Your task to perform on an android device: Clear all items from cart on bestbuy. Add "bose soundsport free" to the cart on bestbuy, then select checkout. Image 0: 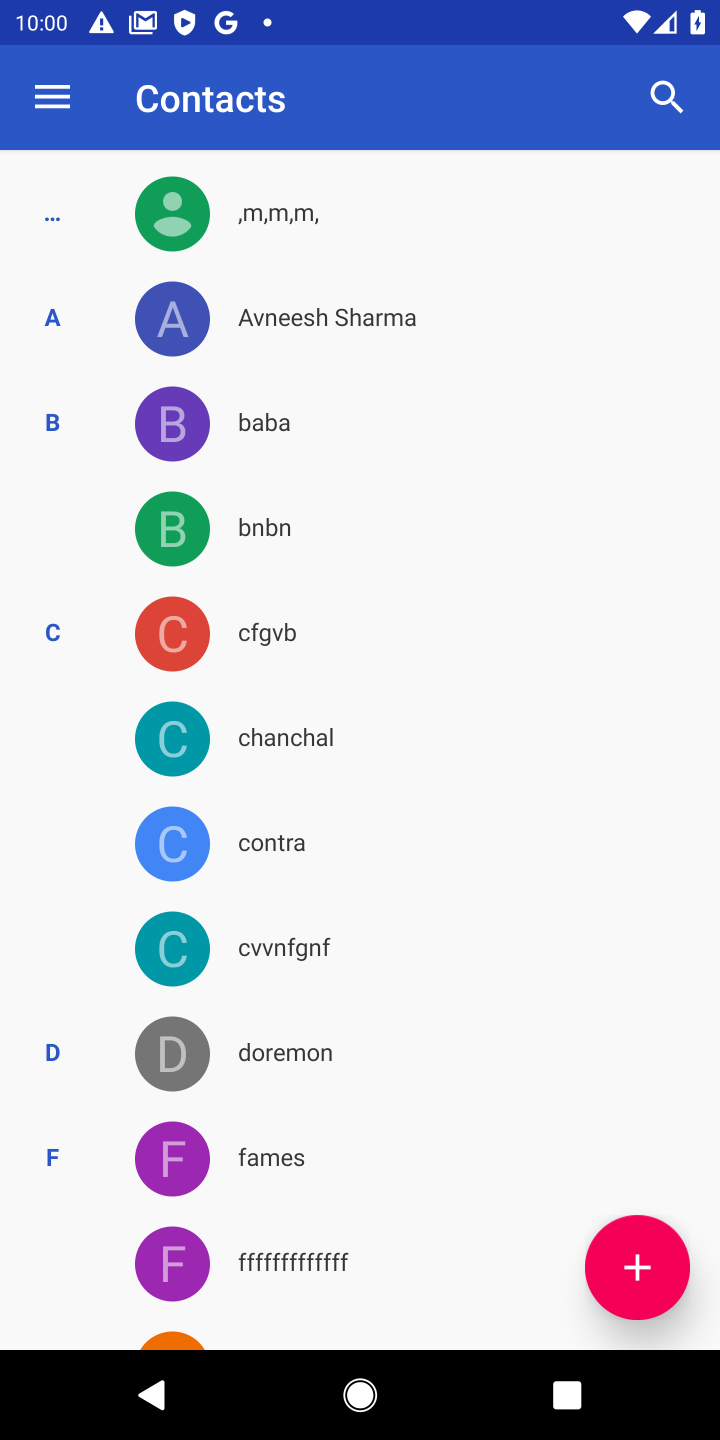
Step 0: press home button
Your task to perform on an android device: Clear all items from cart on bestbuy. Add "bose soundsport free" to the cart on bestbuy, then select checkout. Image 1: 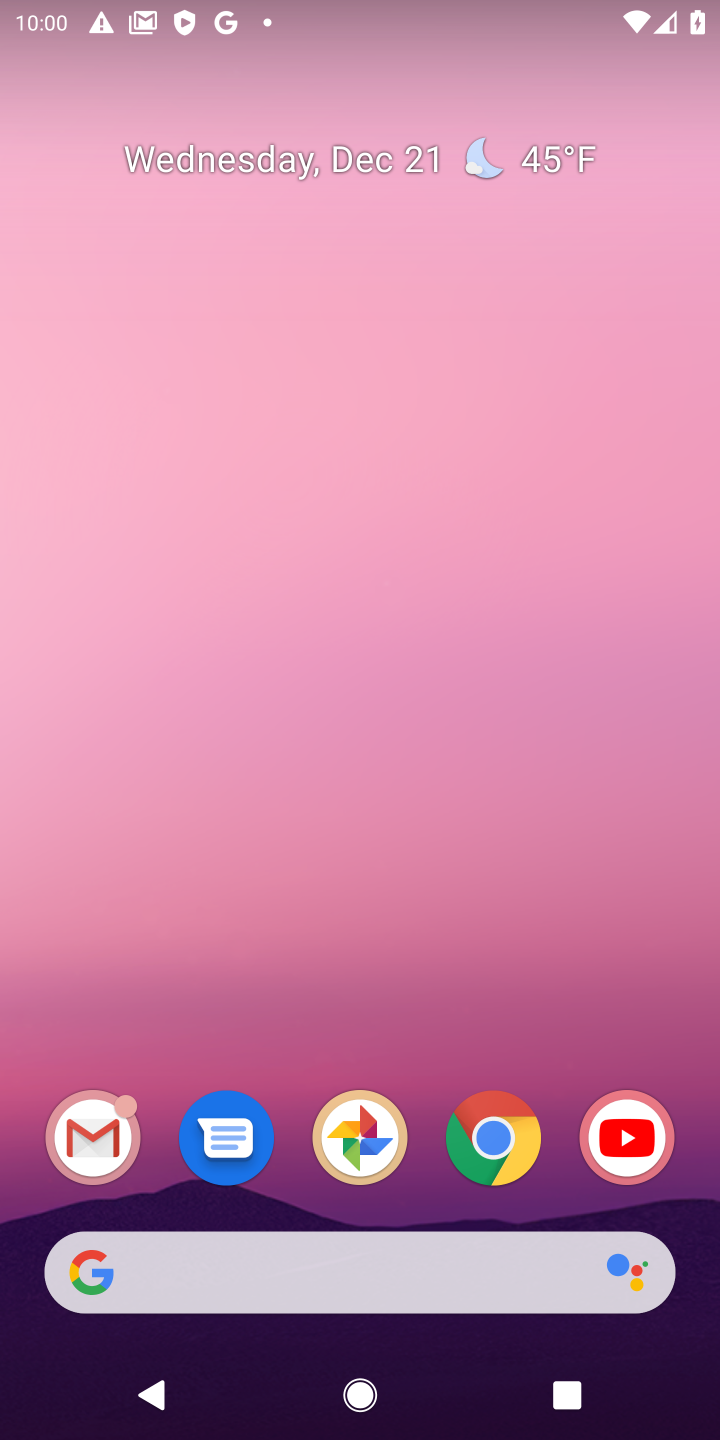
Step 1: click (500, 1151)
Your task to perform on an android device: Clear all items from cart on bestbuy. Add "bose soundsport free" to the cart on bestbuy, then select checkout. Image 2: 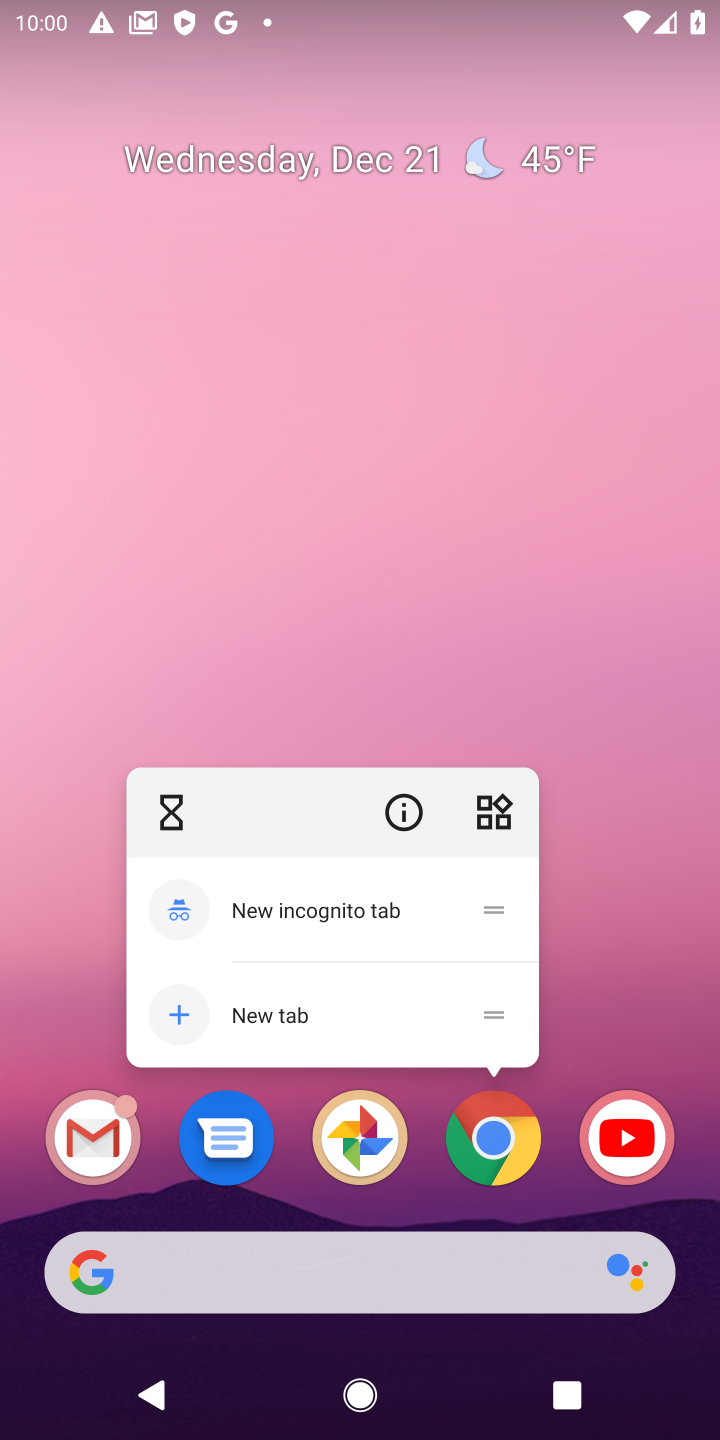
Step 2: click (492, 1144)
Your task to perform on an android device: Clear all items from cart on bestbuy. Add "bose soundsport free" to the cart on bestbuy, then select checkout. Image 3: 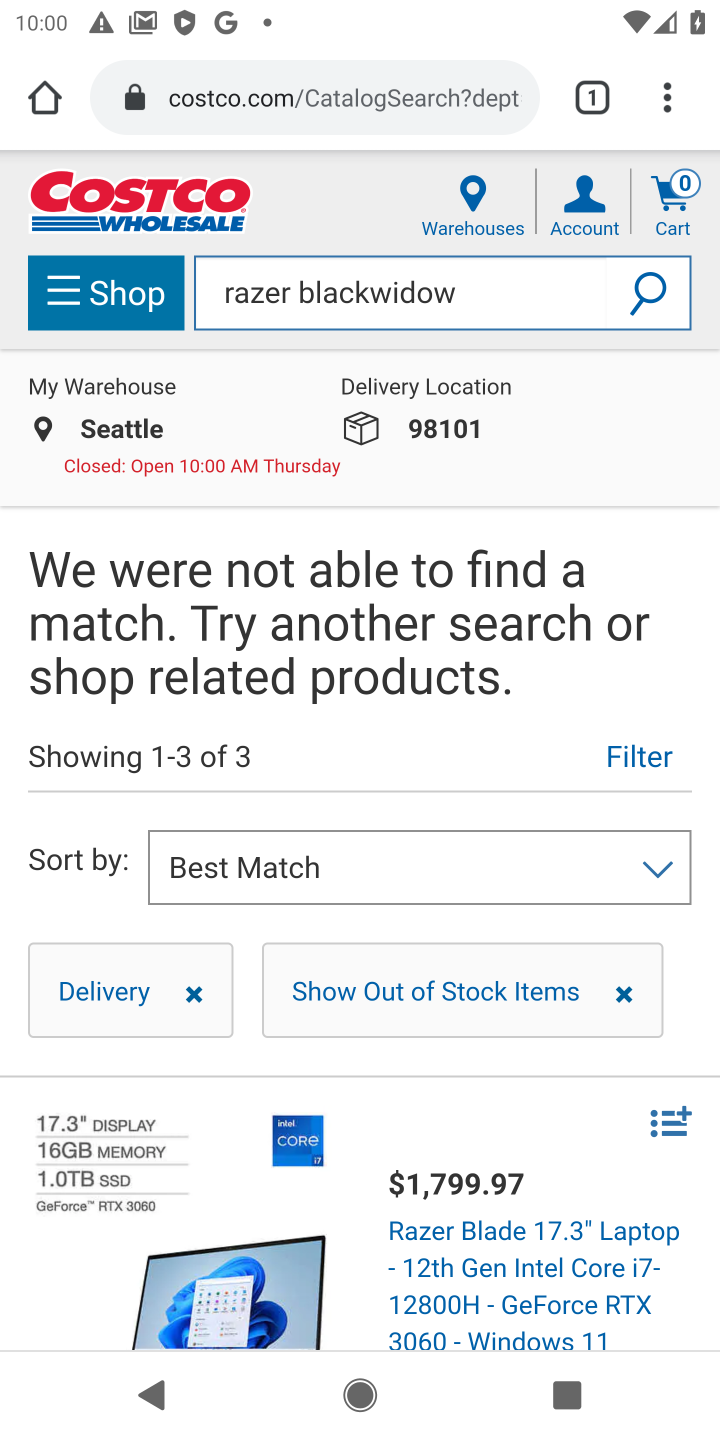
Step 3: click (286, 97)
Your task to perform on an android device: Clear all items from cart on bestbuy. Add "bose soundsport free" to the cart on bestbuy, then select checkout. Image 4: 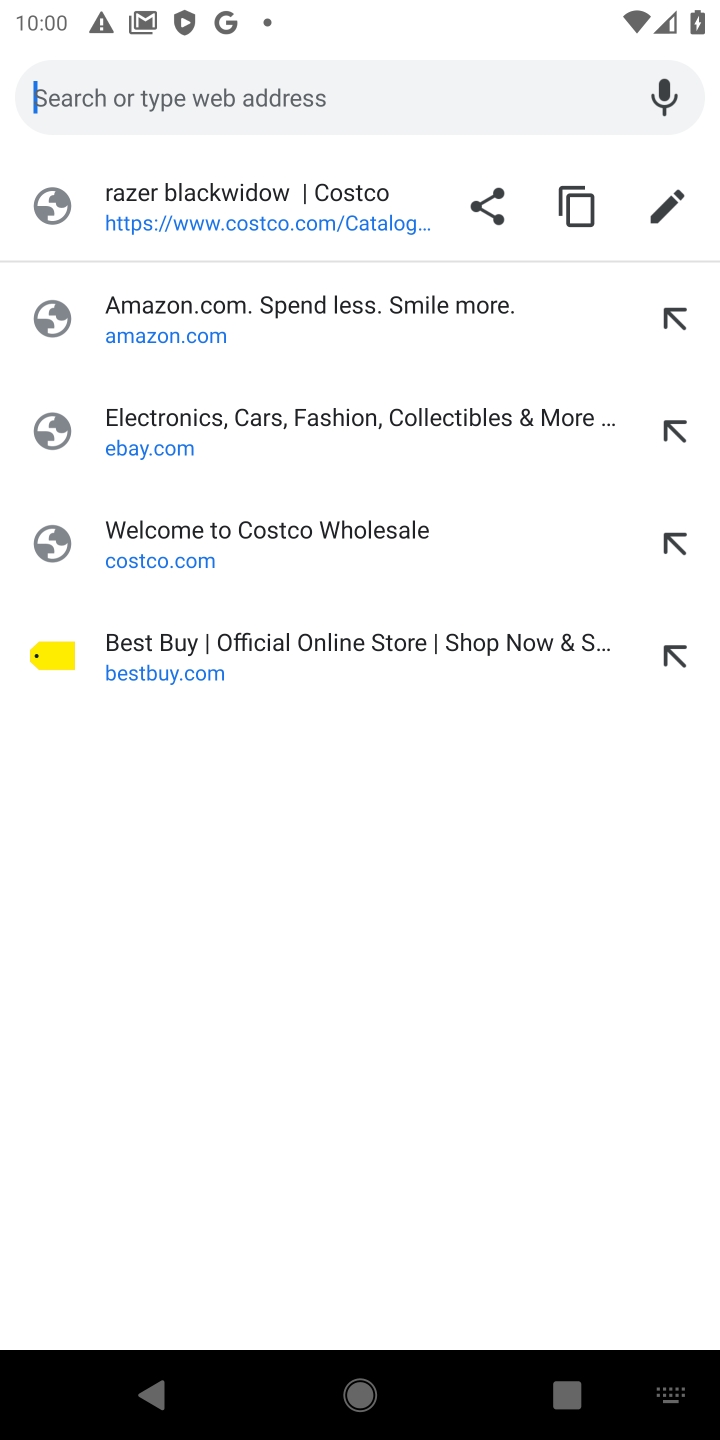
Step 4: click (148, 678)
Your task to perform on an android device: Clear all items from cart on bestbuy. Add "bose soundsport free" to the cart on bestbuy, then select checkout. Image 5: 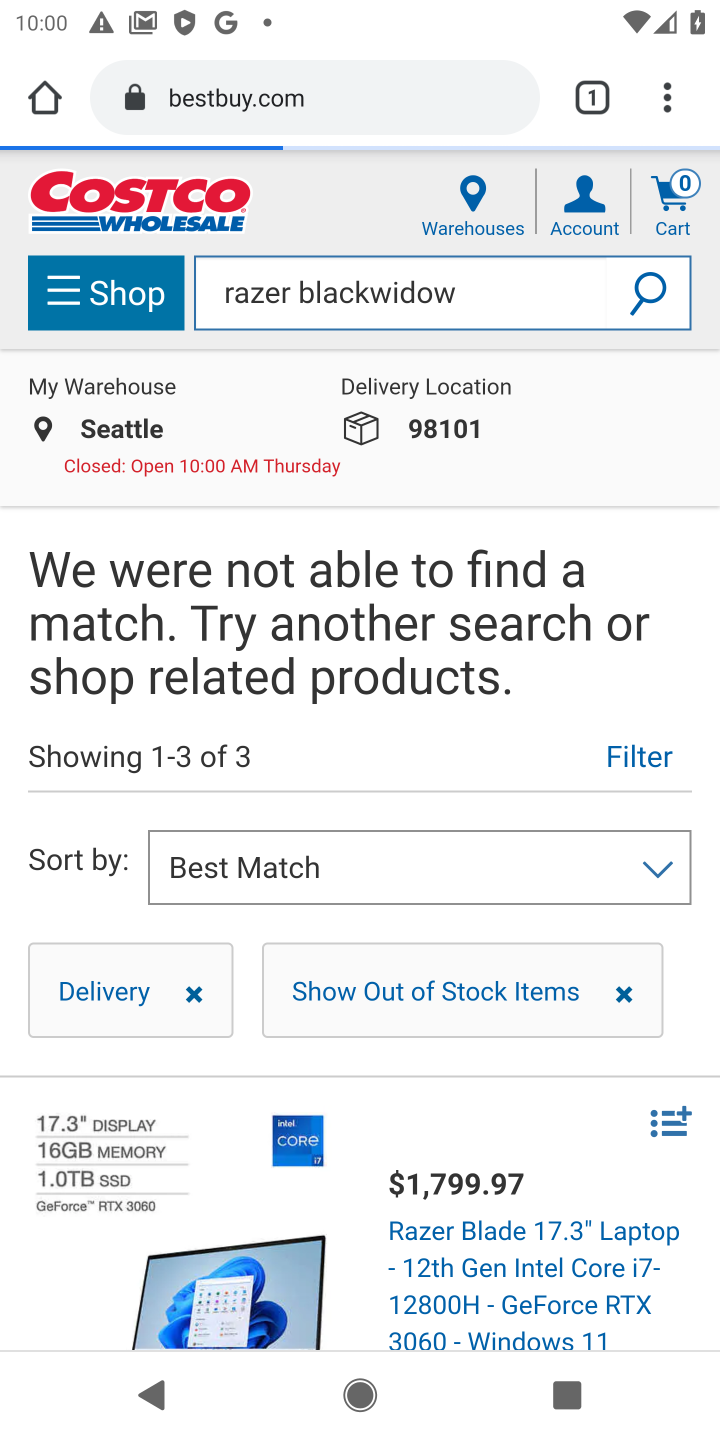
Step 5: click (666, 203)
Your task to perform on an android device: Clear all items from cart on bestbuy. Add "bose soundsport free" to the cart on bestbuy, then select checkout. Image 6: 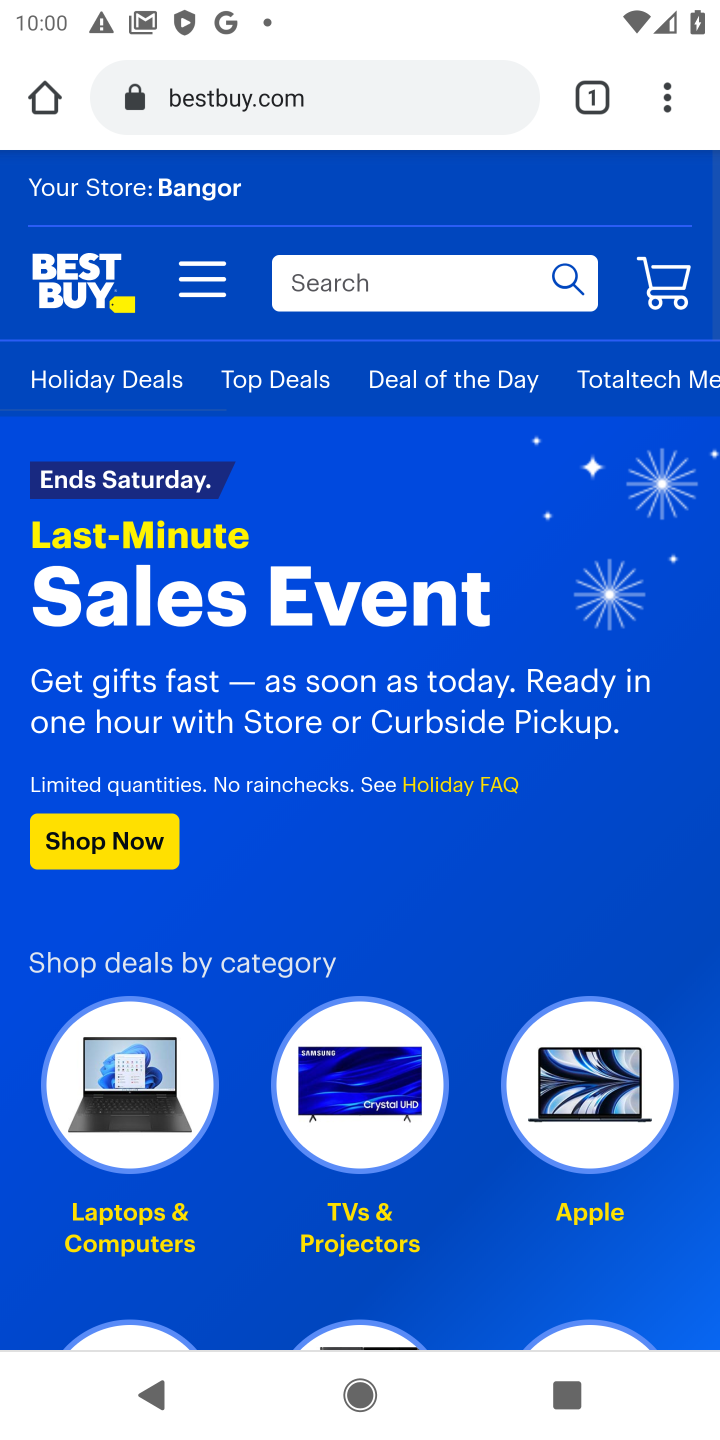
Step 6: click (674, 281)
Your task to perform on an android device: Clear all items from cart on bestbuy. Add "bose soundsport free" to the cart on bestbuy, then select checkout. Image 7: 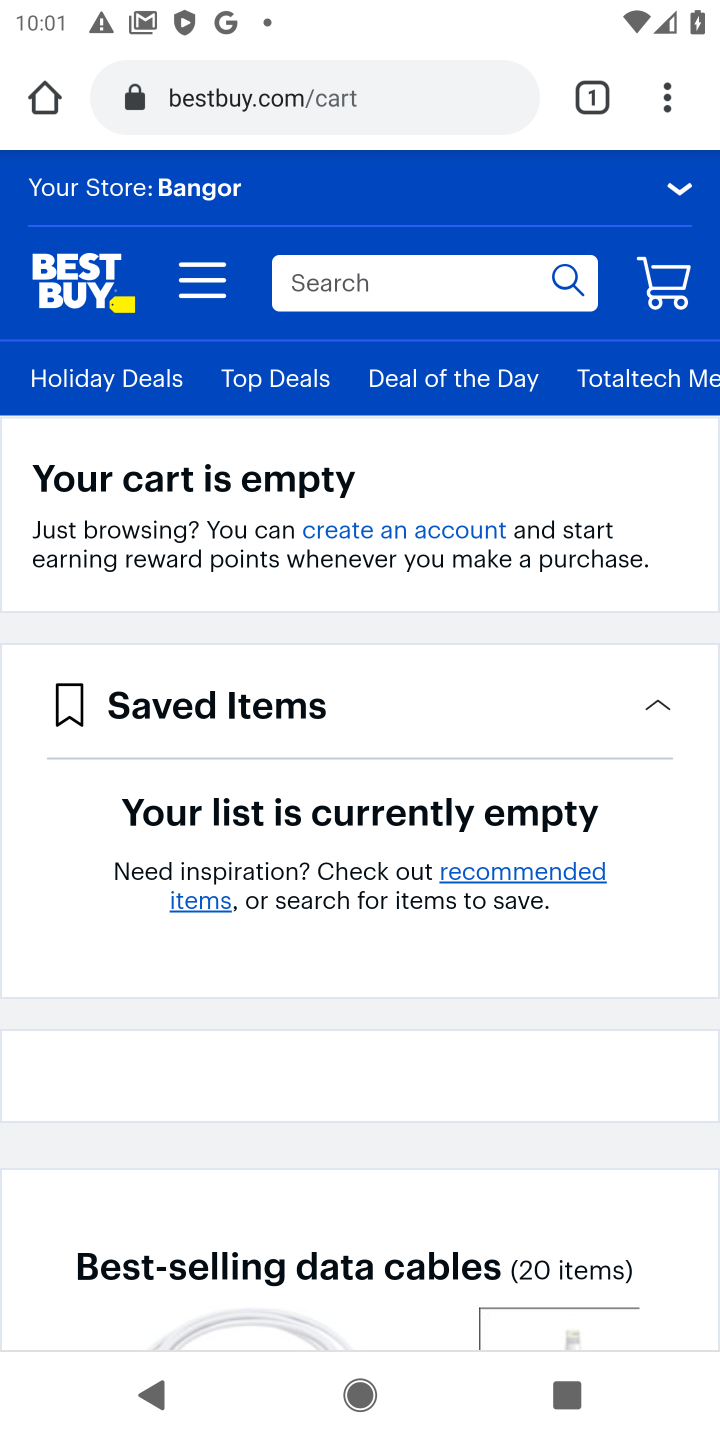
Step 7: click (328, 279)
Your task to perform on an android device: Clear all items from cart on bestbuy. Add "bose soundsport free" to the cart on bestbuy, then select checkout. Image 8: 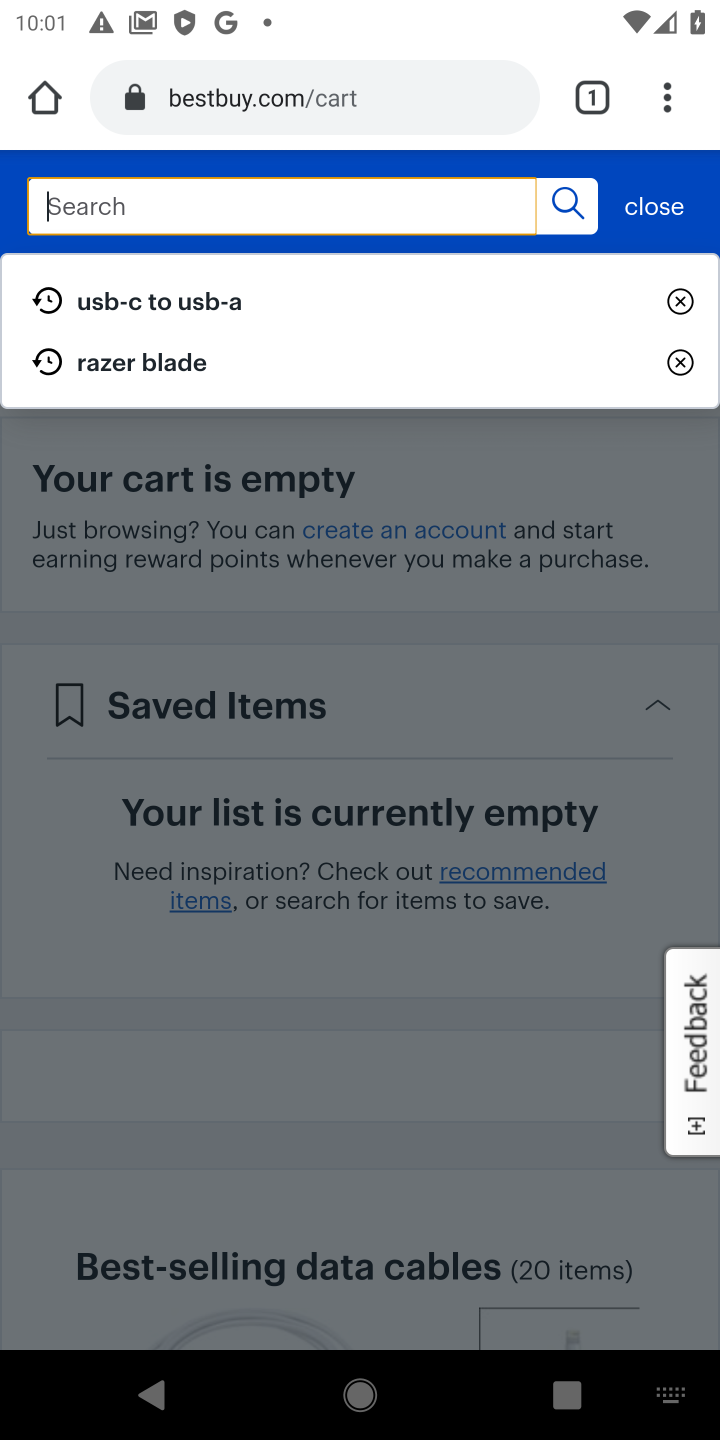
Step 8: type "bose soundsport free"
Your task to perform on an android device: Clear all items from cart on bestbuy. Add "bose soundsport free" to the cart on bestbuy, then select checkout. Image 9: 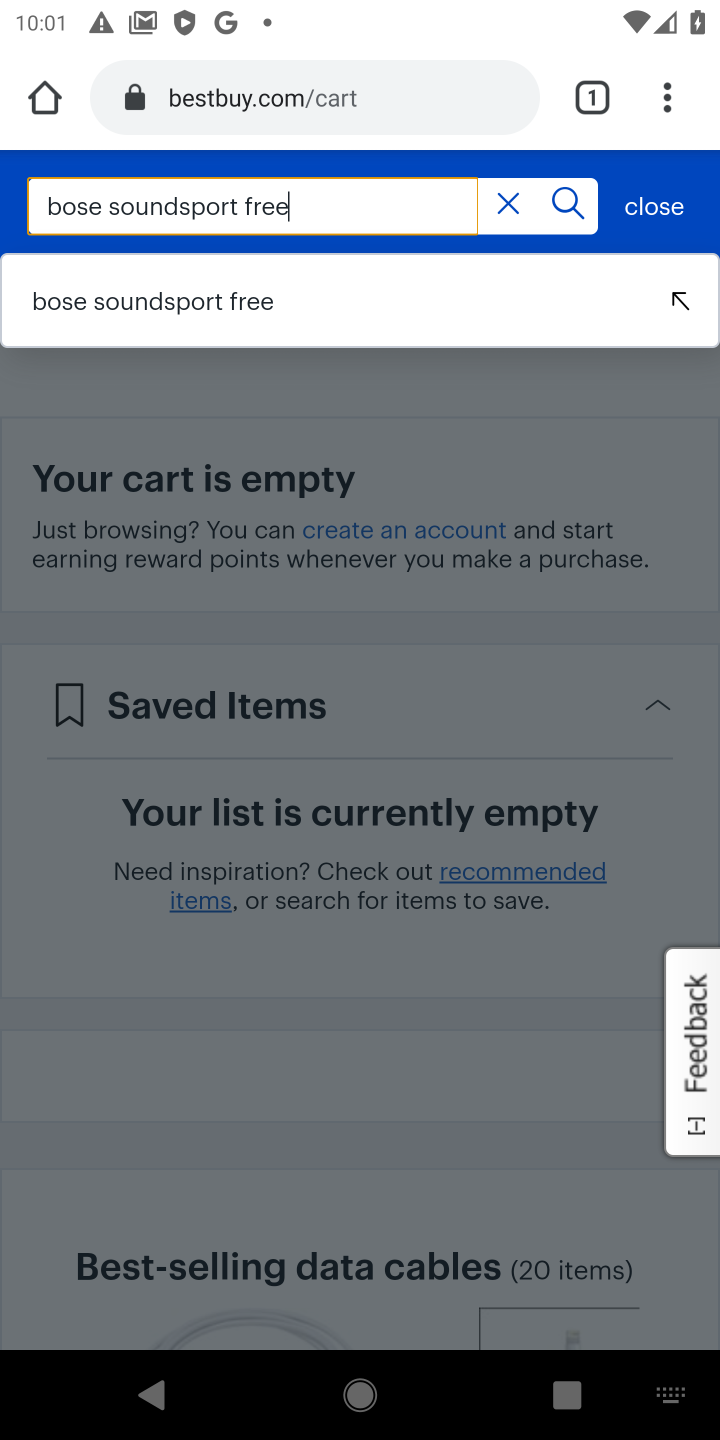
Step 9: click (150, 312)
Your task to perform on an android device: Clear all items from cart on bestbuy. Add "bose soundsport free" to the cart on bestbuy, then select checkout. Image 10: 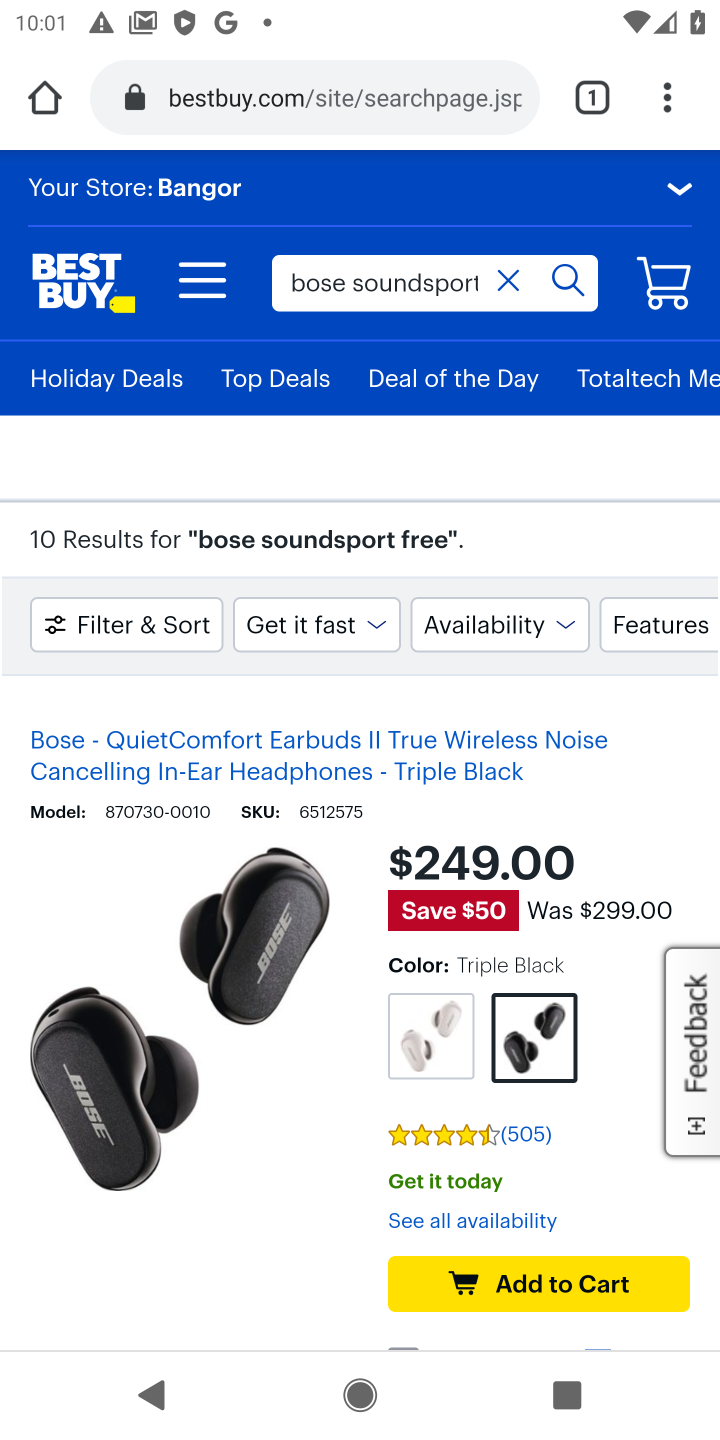
Step 10: task complete